Your task to perform on an android device: turn on the 24-hour format for clock Image 0: 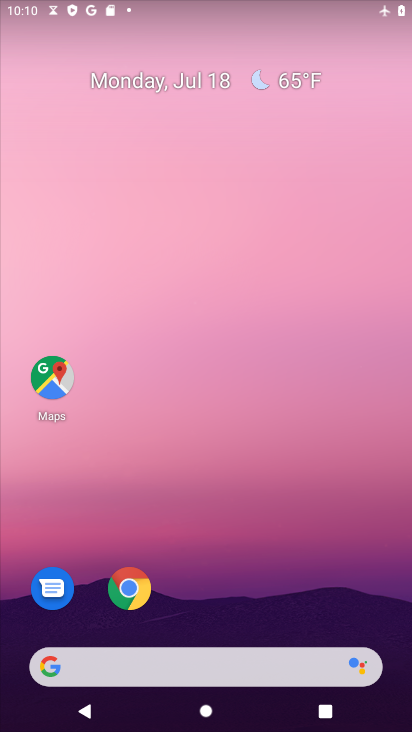
Step 0: drag from (210, 662) to (277, 147)
Your task to perform on an android device: turn on the 24-hour format for clock Image 1: 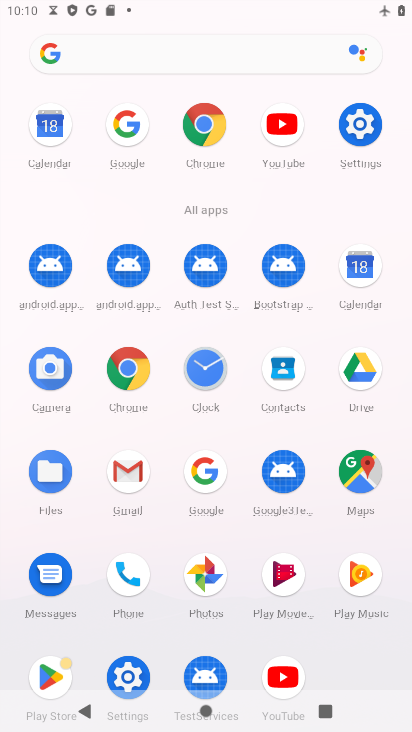
Step 1: click (205, 372)
Your task to perform on an android device: turn on the 24-hour format for clock Image 2: 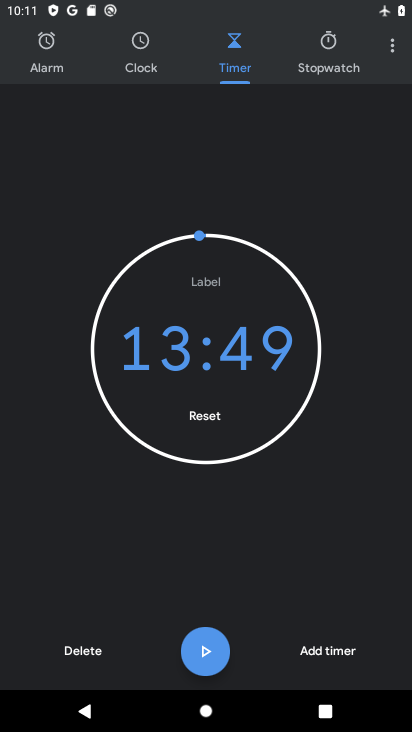
Step 2: click (394, 50)
Your task to perform on an android device: turn on the 24-hour format for clock Image 3: 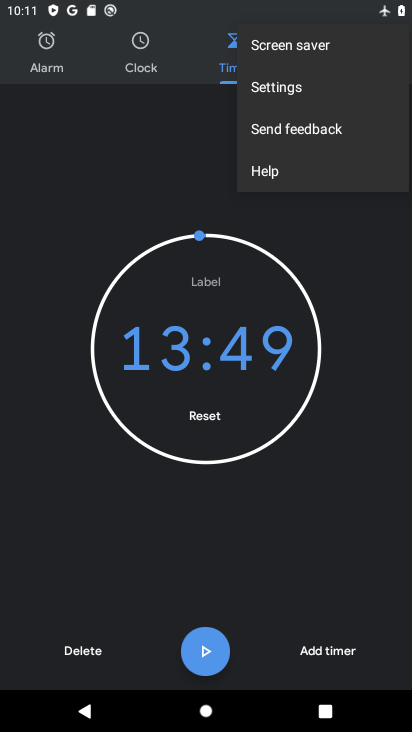
Step 3: click (287, 84)
Your task to perform on an android device: turn on the 24-hour format for clock Image 4: 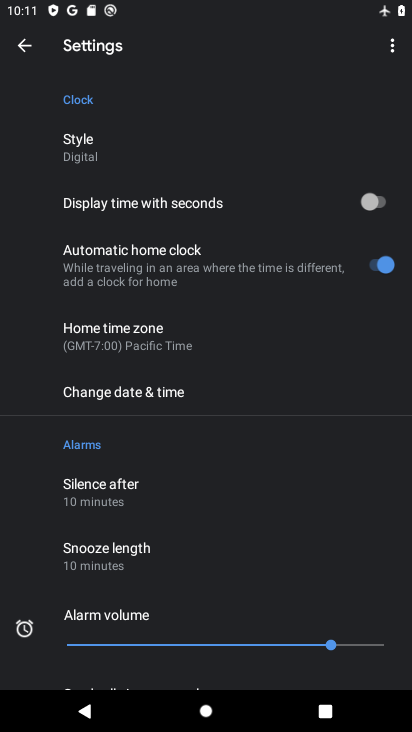
Step 4: click (182, 390)
Your task to perform on an android device: turn on the 24-hour format for clock Image 5: 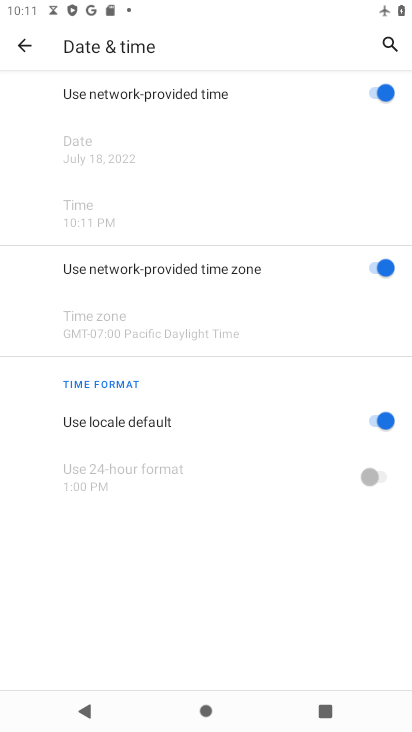
Step 5: click (390, 421)
Your task to perform on an android device: turn on the 24-hour format for clock Image 6: 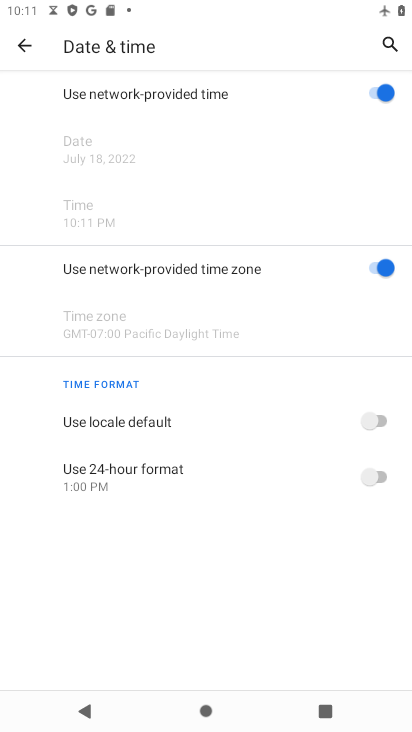
Step 6: click (365, 479)
Your task to perform on an android device: turn on the 24-hour format for clock Image 7: 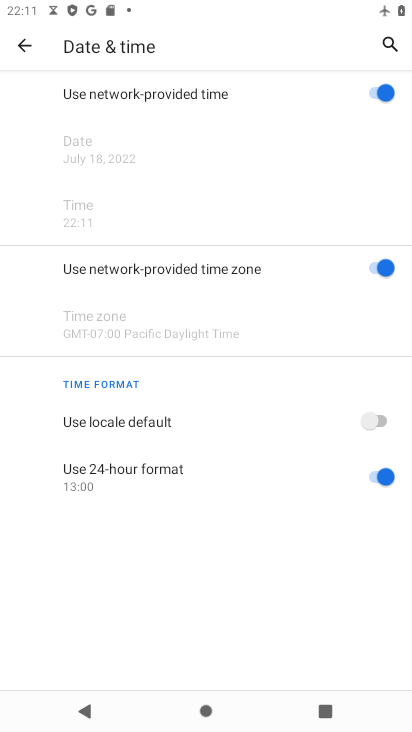
Step 7: task complete